Your task to perform on an android device: Check the weather Image 0: 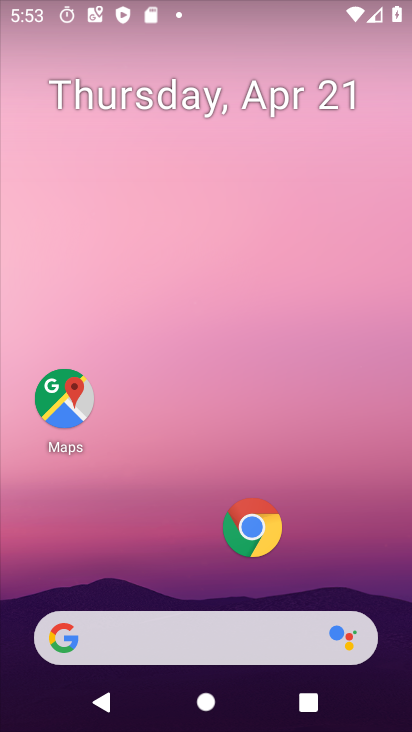
Step 0: click (167, 633)
Your task to perform on an android device: Check the weather Image 1: 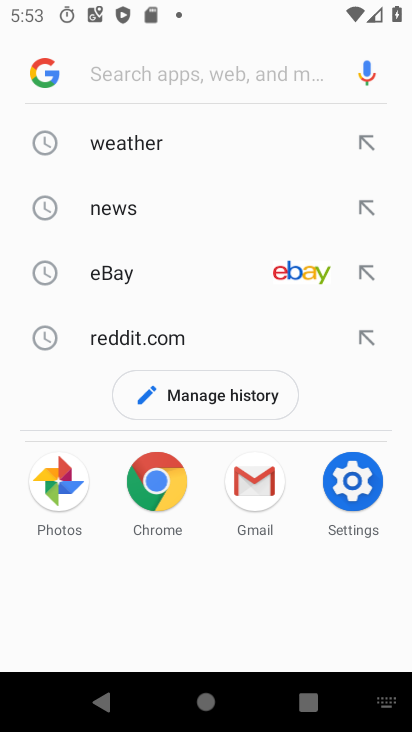
Step 1: click (144, 142)
Your task to perform on an android device: Check the weather Image 2: 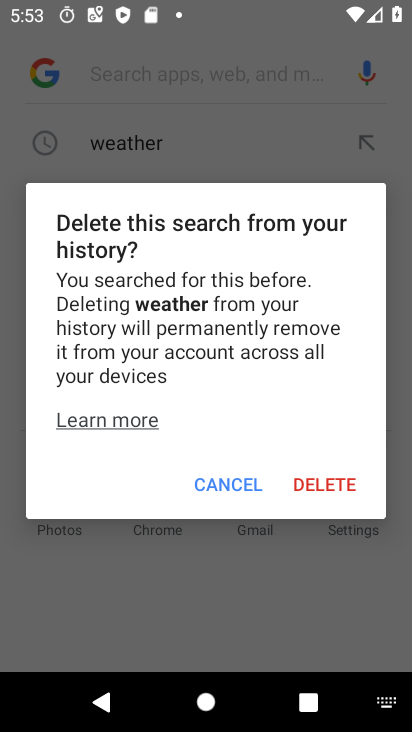
Step 2: click (224, 489)
Your task to perform on an android device: Check the weather Image 3: 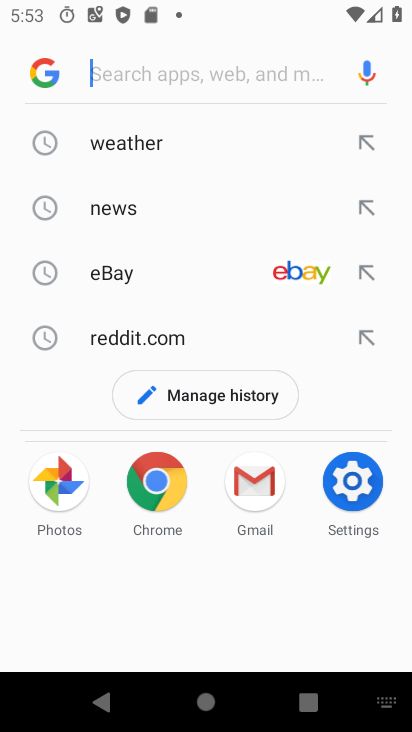
Step 3: click (155, 141)
Your task to perform on an android device: Check the weather Image 4: 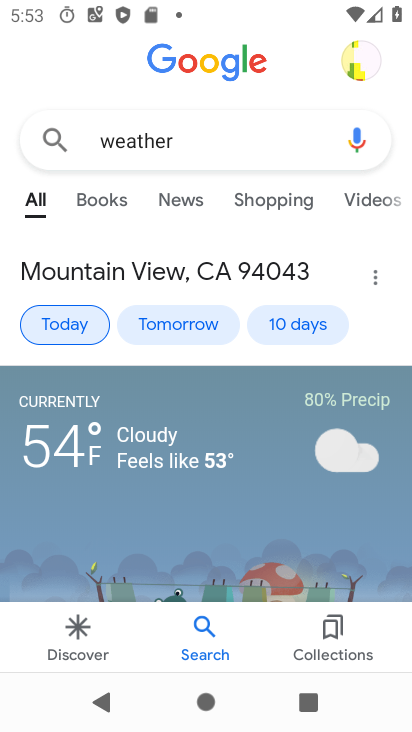
Step 4: task complete